Your task to perform on an android device: open app "Adobe Acrobat Reader" (install if not already installed) and go to login screen Image 0: 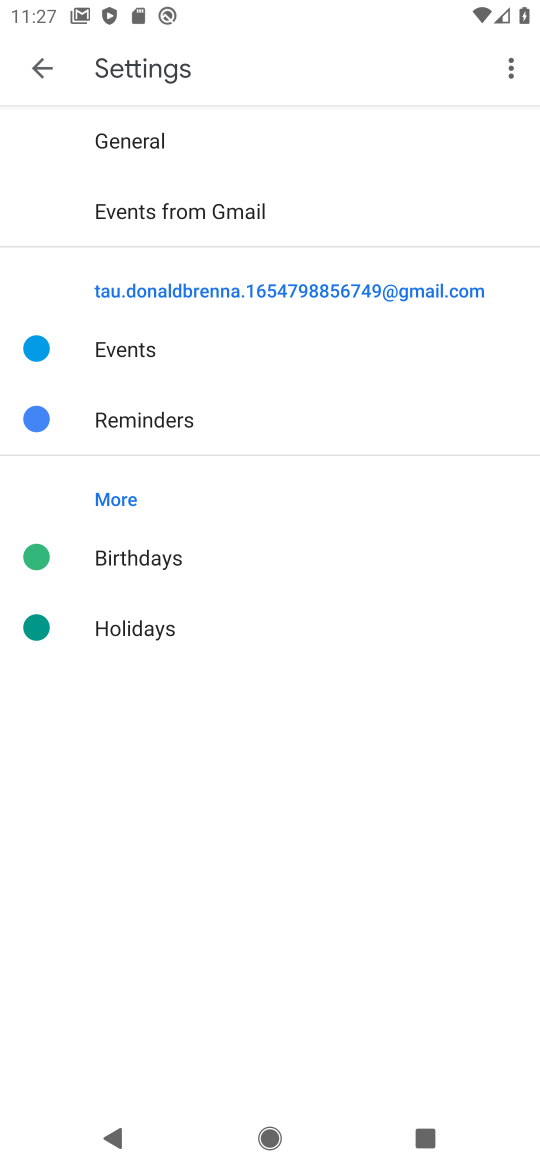
Step 0: press home button
Your task to perform on an android device: open app "Adobe Acrobat Reader" (install if not already installed) and go to login screen Image 1: 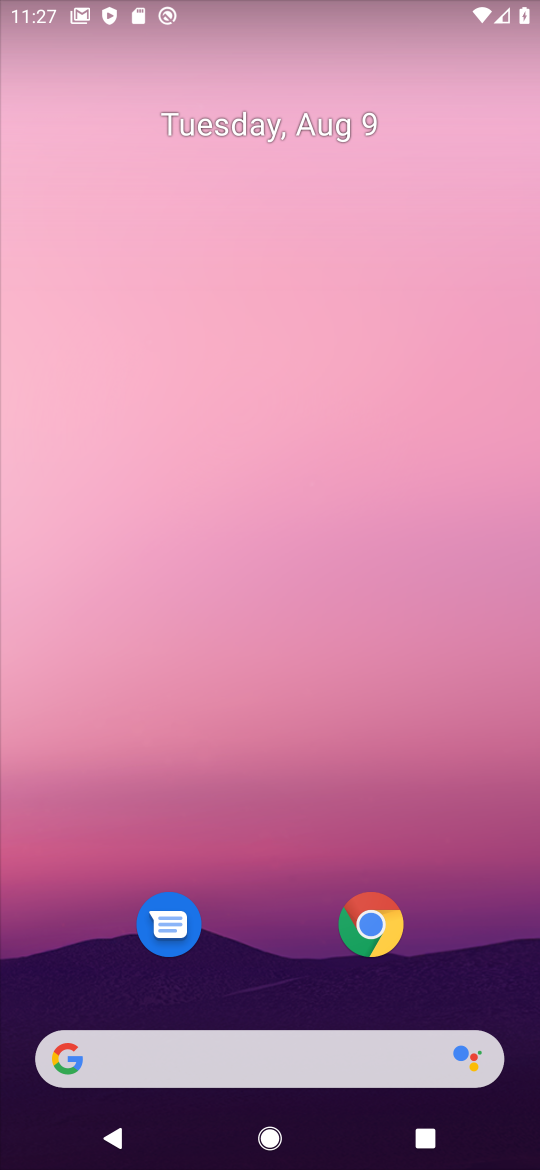
Step 1: drag from (268, 976) to (340, 172)
Your task to perform on an android device: open app "Adobe Acrobat Reader" (install if not already installed) and go to login screen Image 2: 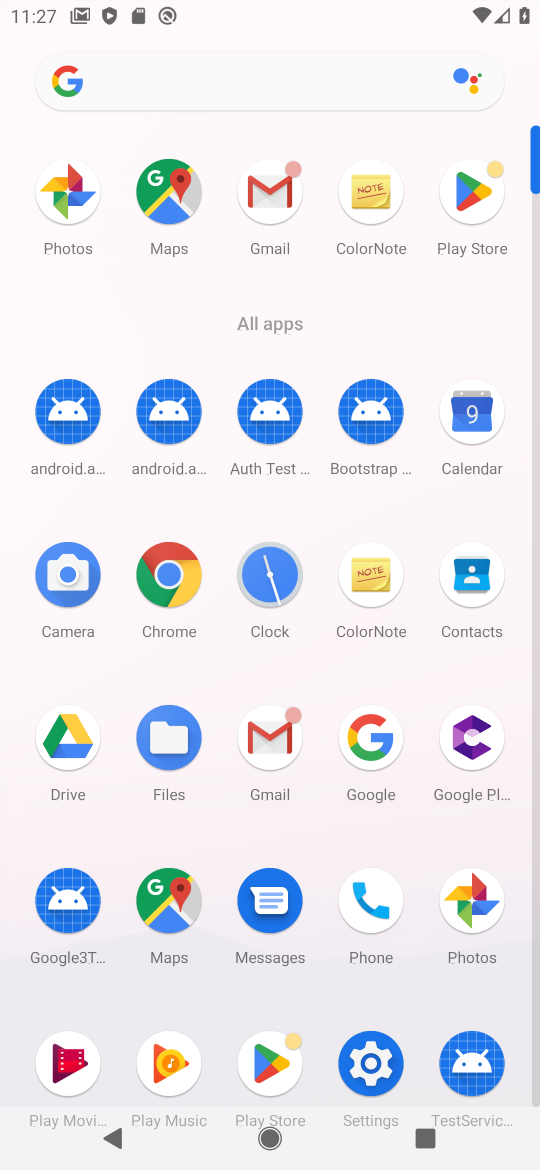
Step 2: click (479, 185)
Your task to perform on an android device: open app "Adobe Acrobat Reader" (install if not already installed) and go to login screen Image 3: 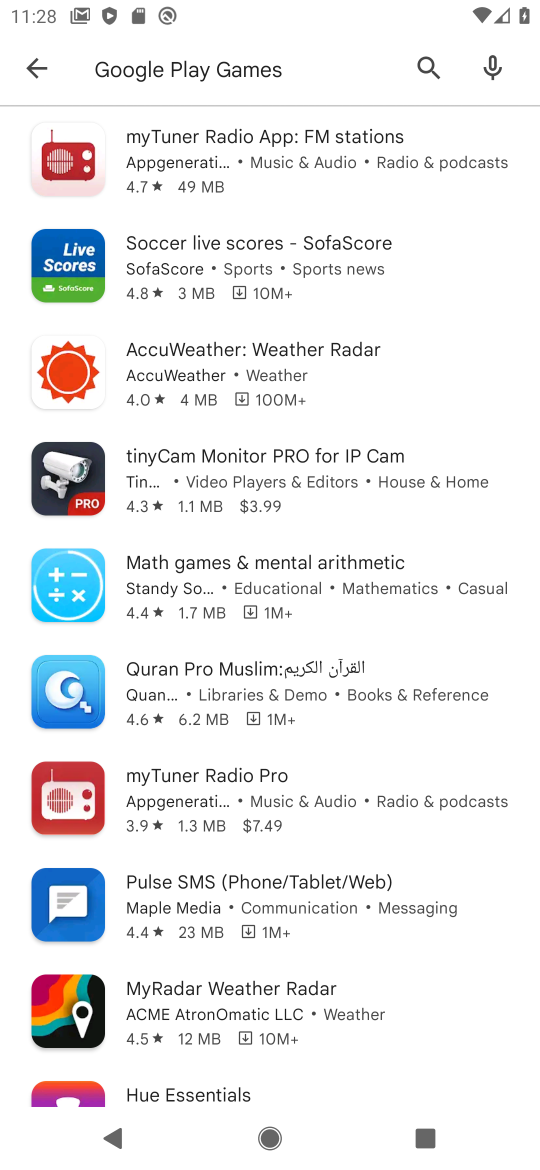
Step 3: click (427, 62)
Your task to perform on an android device: open app "Adobe Acrobat Reader" (install if not already installed) and go to login screen Image 4: 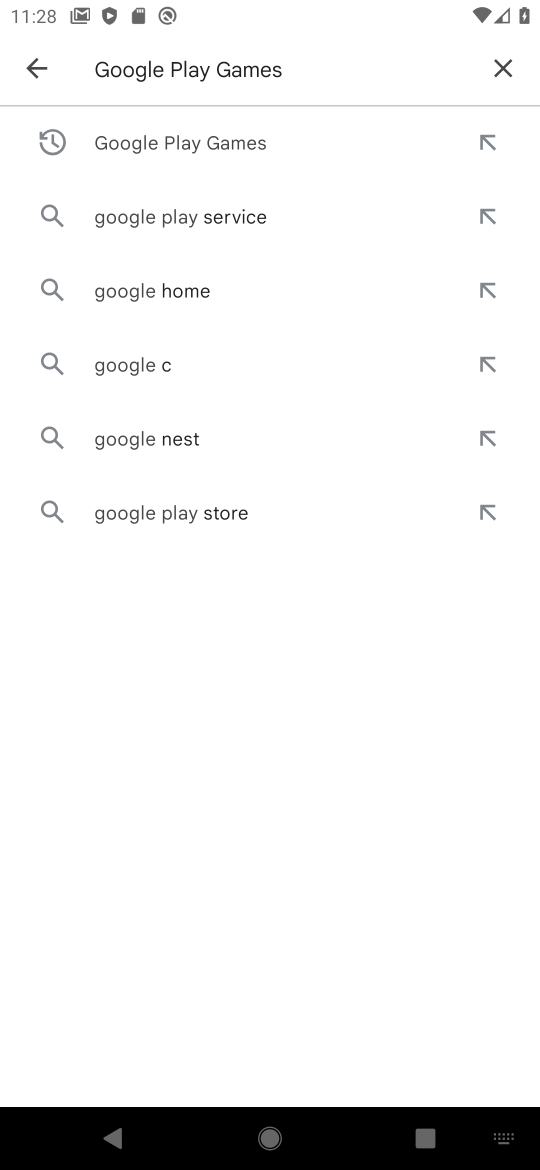
Step 4: click (508, 56)
Your task to perform on an android device: open app "Adobe Acrobat Reader" (install if not already installed) and go to login screen Image 5: 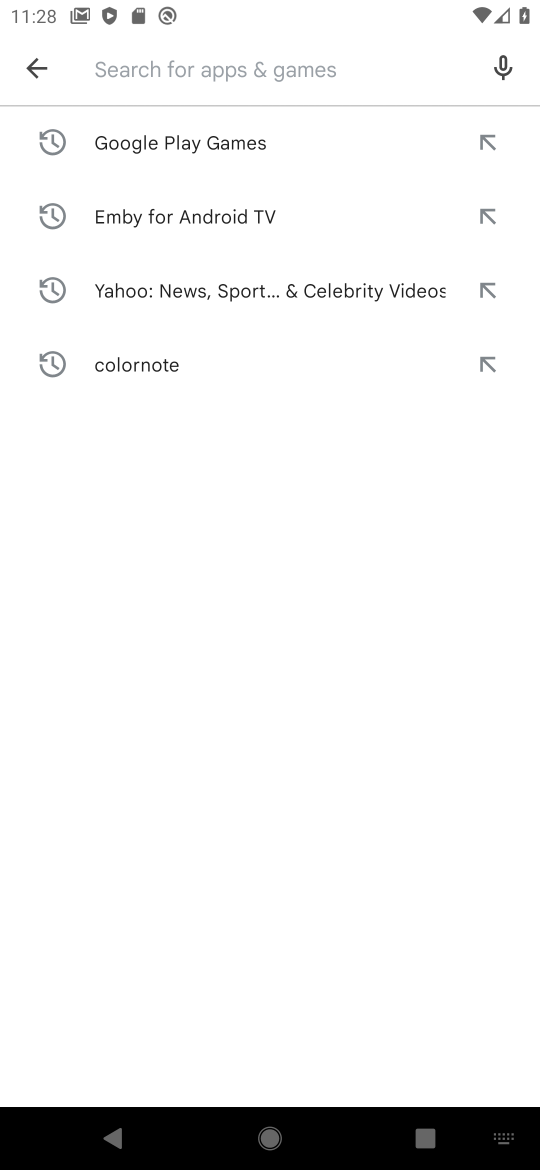
Step 5: click (216, 74)
Your task to perform on an android device: open app "Adobe Acrobat Reader" (install if not already installed) and go to login screen Image 6: 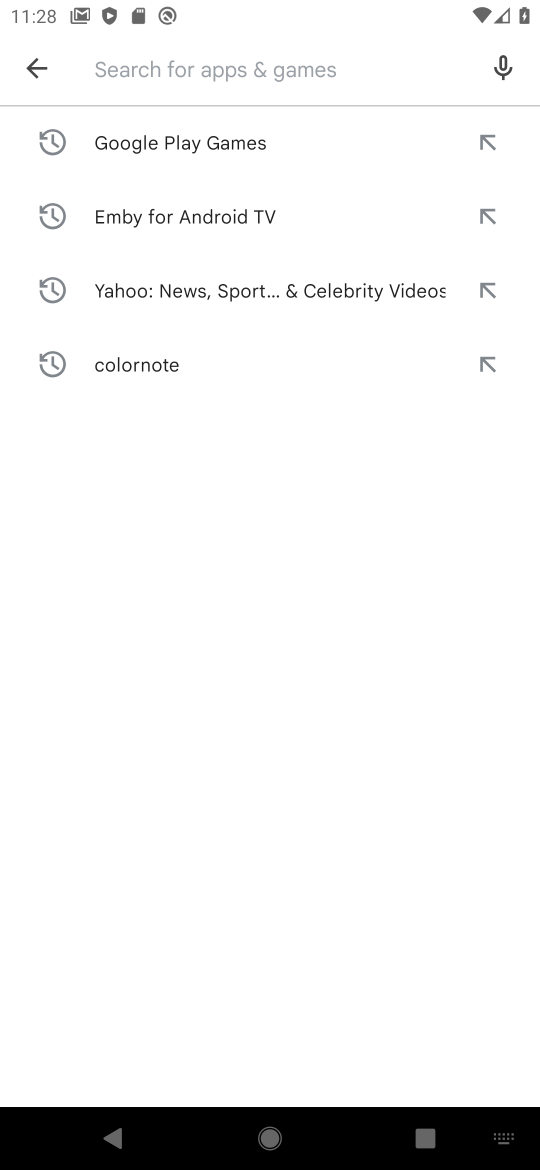
Step 6: type "Adobe Acrobat Reader"
Your task to perform on an android device: open app "Adobe Acrobat Reader" (install if not already installed) and go to login screen Image 7: 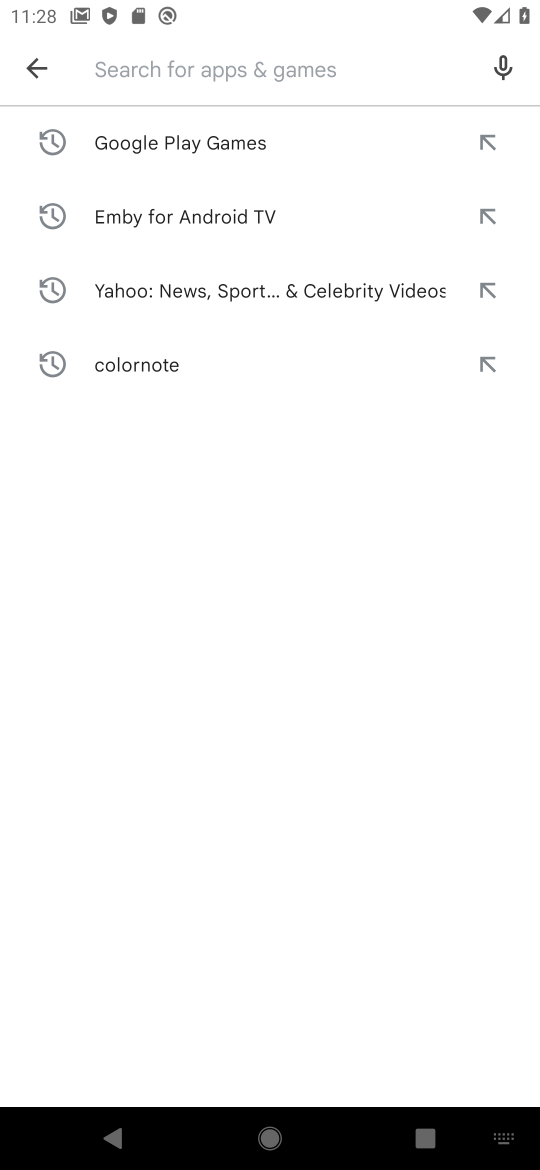
Step 7: click (356, 555)
Your task to perform on an android device: open app "Adobe Acrobat Reader" (install if not already installed) and go to login screen Image 8: 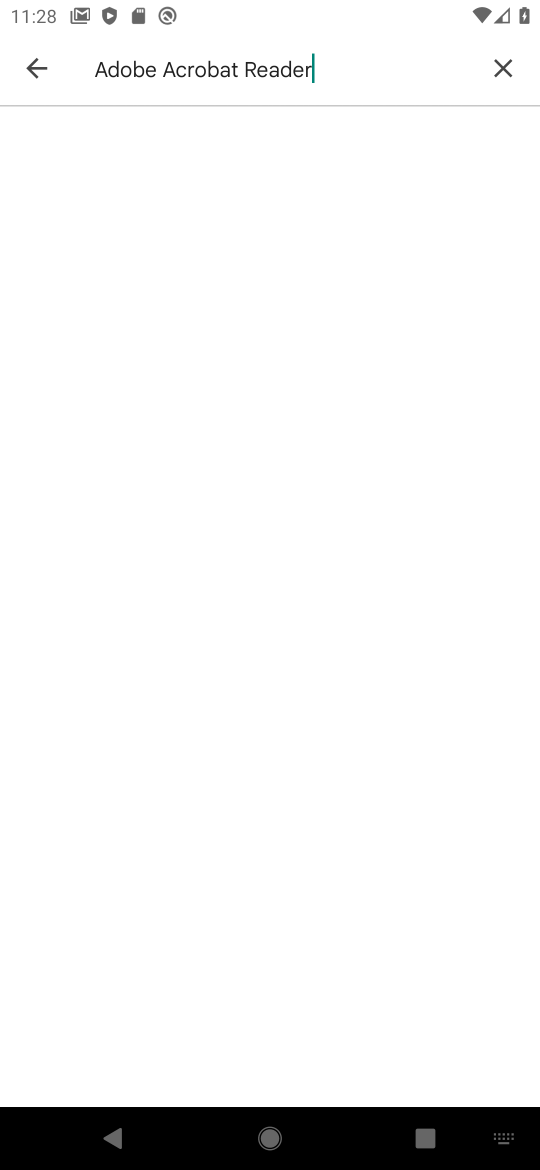
Step 8: task complete